Your task to perform on an android device: change the upload size in google photos Image 0: 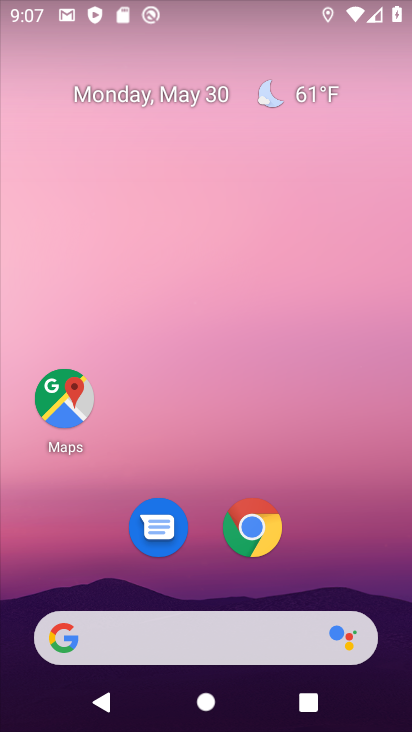
Step 0: drag from (323, 583) to (300, 98)
Your task to perform on an android device: change the upload size in google photos Image 1: 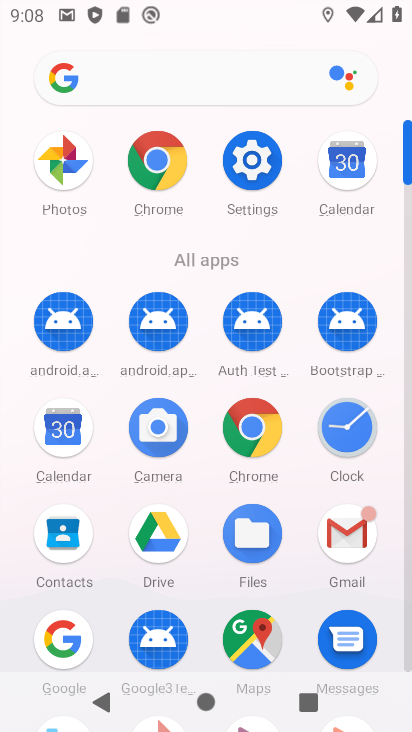
Step 1: click (51, 156)
Your task to perform on an android device: change the upload size in google photos Image 2: 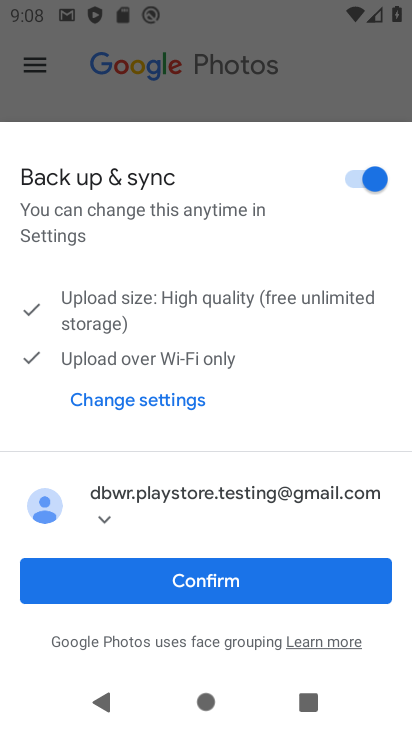
Step 2: click (223, 571)
Your task to perform on an android device: change the upload size in google photos Image 3: 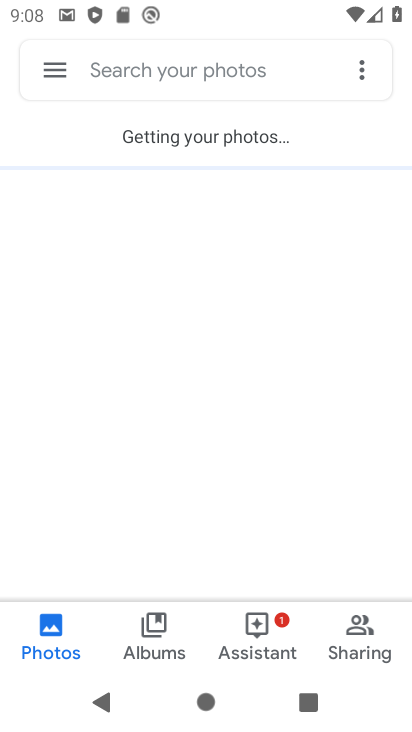
Step 3: click (52, 57)
Your task to perform on an android device: change the upload size in google photos Image 4: 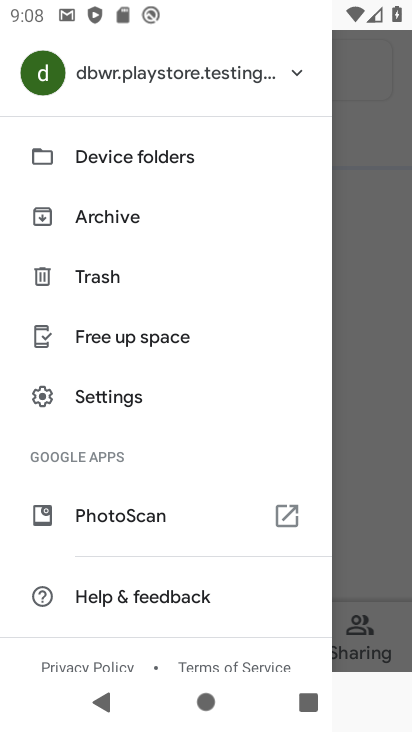
Step 4: click (116, 400)
Your task to perform on an android device: change the upload size in google photos Image 5: 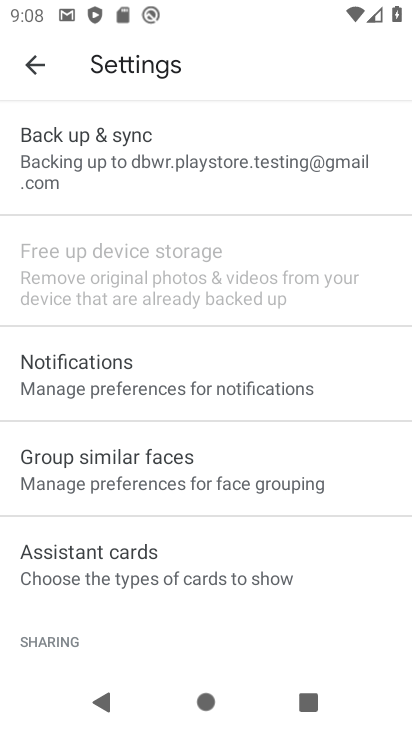
Step 5: click (82, 168)
Your task to perform on an android device: change the upload size in google photos Image 6: 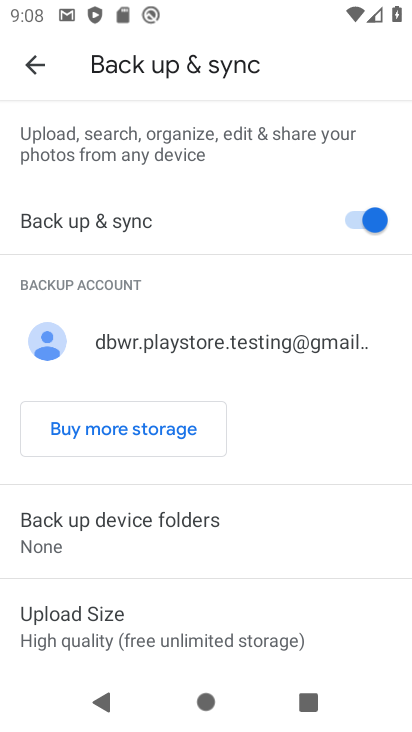
Step 6: click (153, 619)
Your task to perform on an android device: change the upload size in google photos Image 7: 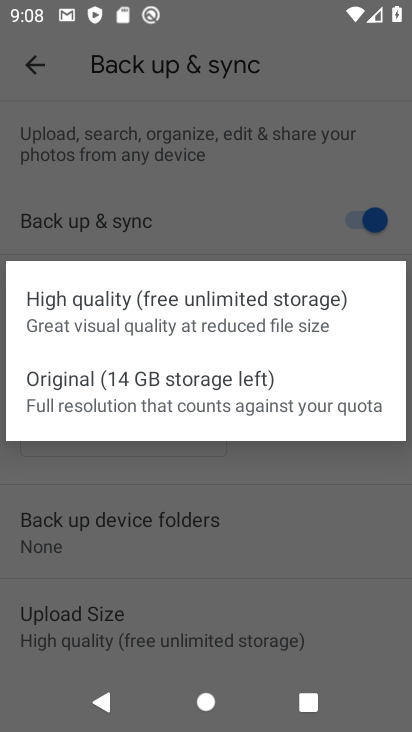
Step 7: click (102, 371)
Your task to perform on an android device: change the upload size in google photos Image 8: 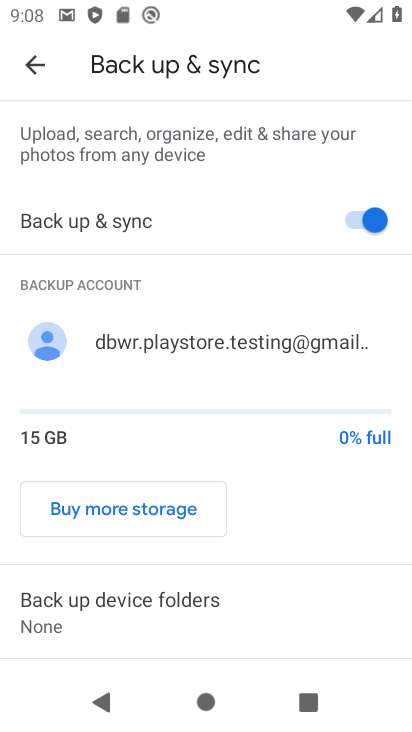
Step 8: task complete